Your task to perform on an android device: Go to display settings Image 0: 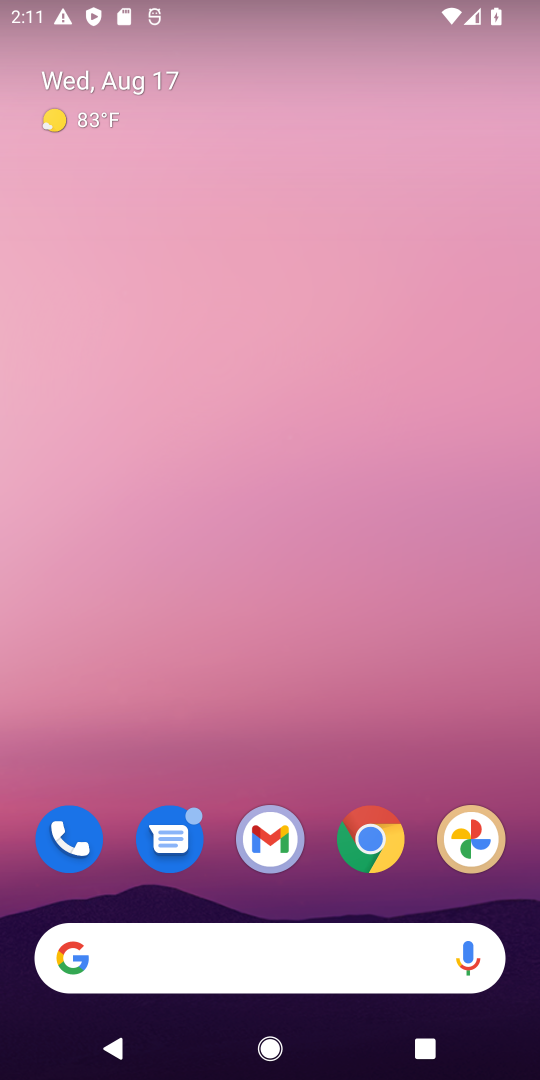
Step 0: drag from (305, 916) to (285, 123)
Your task to perform on an android device: Go to display settings Image 1: 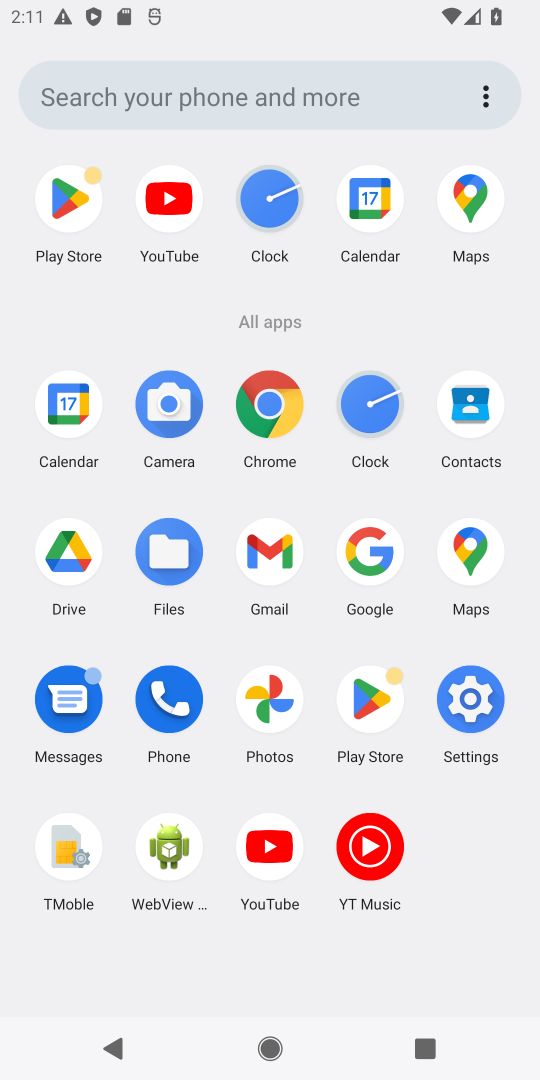
Step 1: click (460, 714)
Your task to perform on an android device: Go to display settings Image 2: 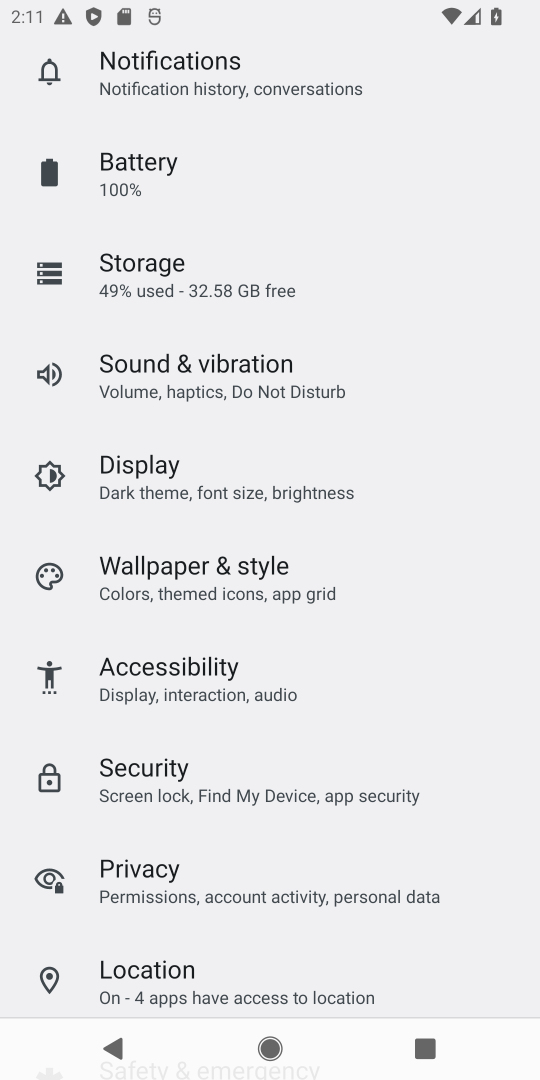
Step 2: click (140, 475)
Your task to perform on an android device: Go to display settings Image 3: 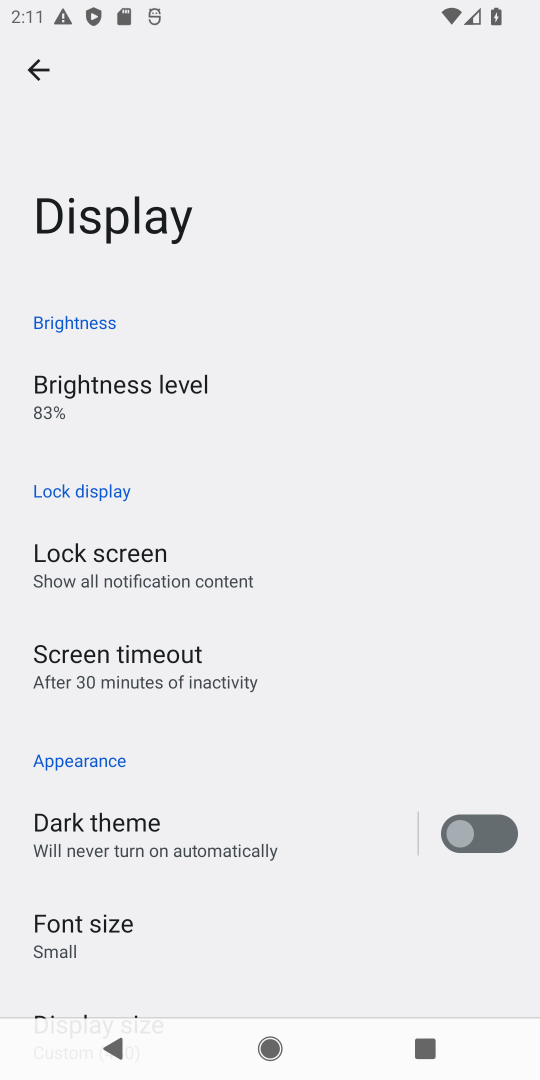
Step 3: task complete